Your task to perform on an android device: Search for sushi restaurants on Maps Image 0: 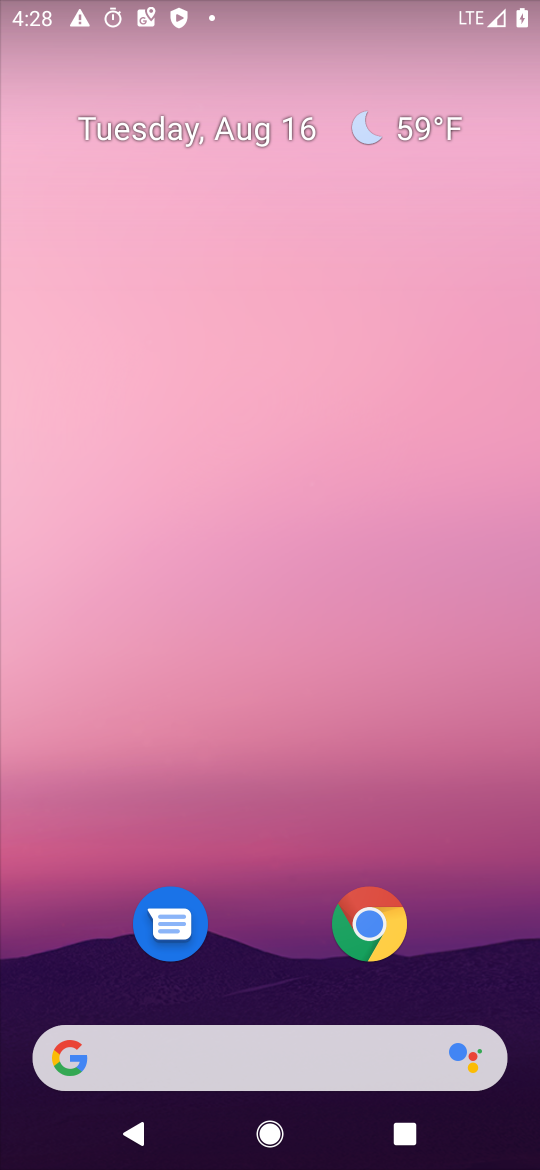
Step 0: drag from (275, 955) to (308, 28)
Your task to perform on an android device: Search for sushi restaurants on Maps Image 1: 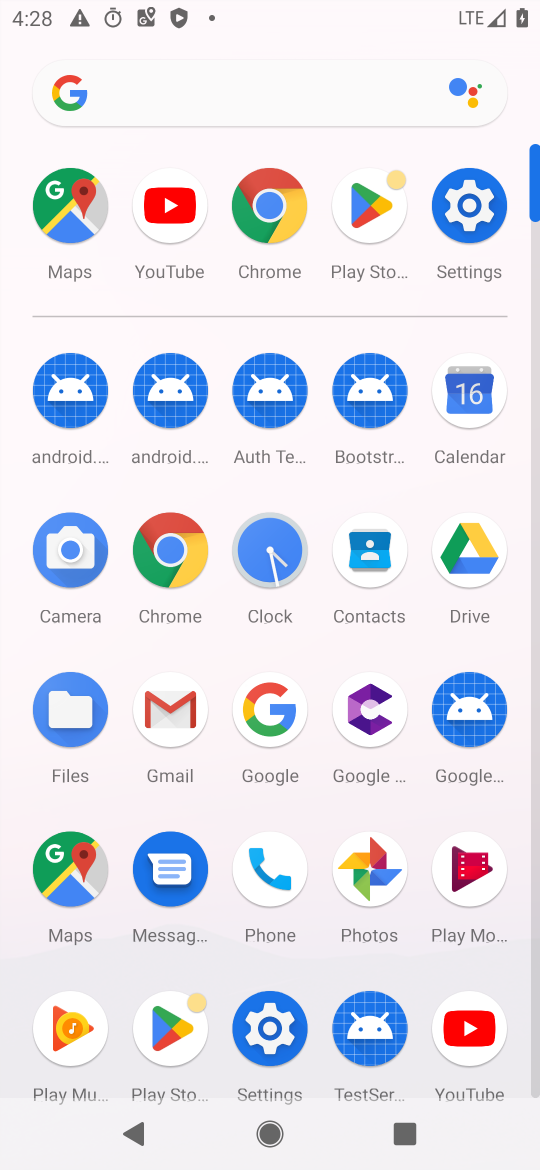
Step 1: click (88, 227)
Your task to perform on an android device: Search for sushi restaurants on Maps Image 2: 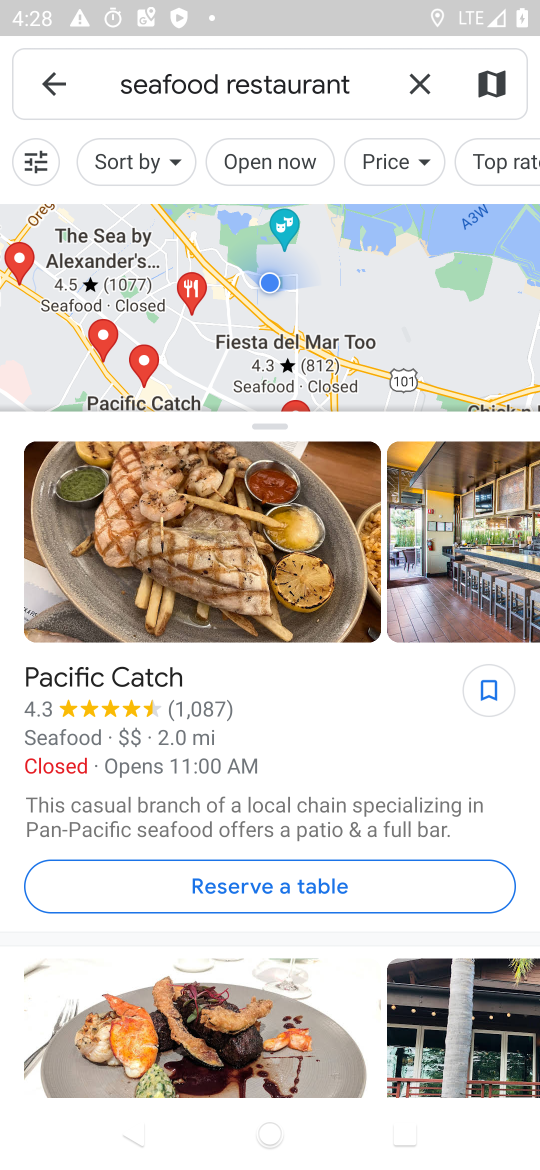
Step 2: click (418, 92)
Your task to perform on an android device: Search for sushi restaurants on Maps Image 3: 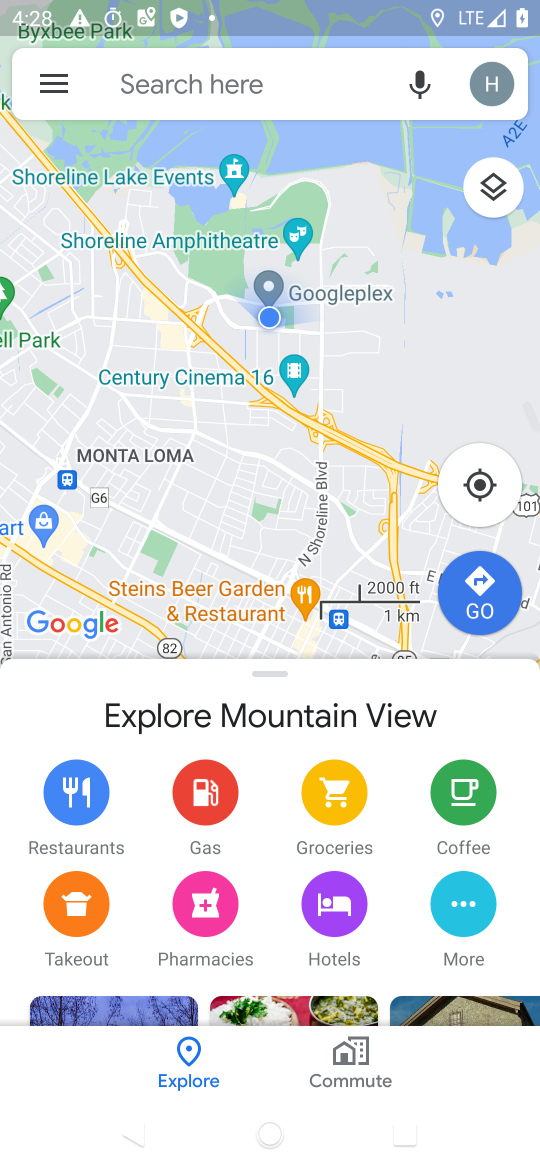
Step 3: click (372, 88)
Your task to perform on an android device: Search for sushi restaurants on Maps Image 4: 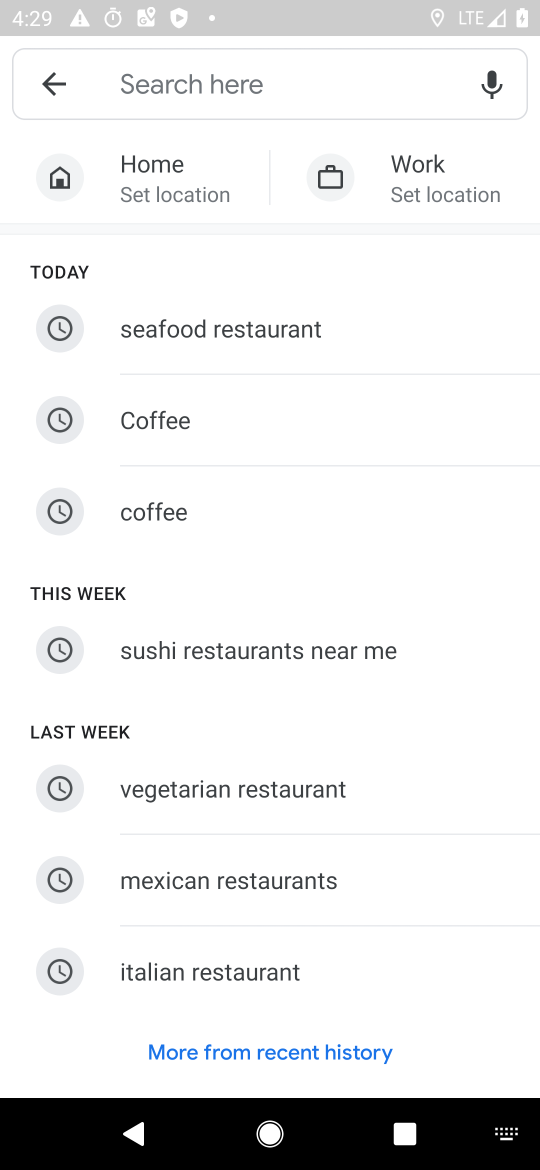
Step 4: click (389, 643)
Your task to perform on an android device: Search for sushi restaurants on Maps Image 5: 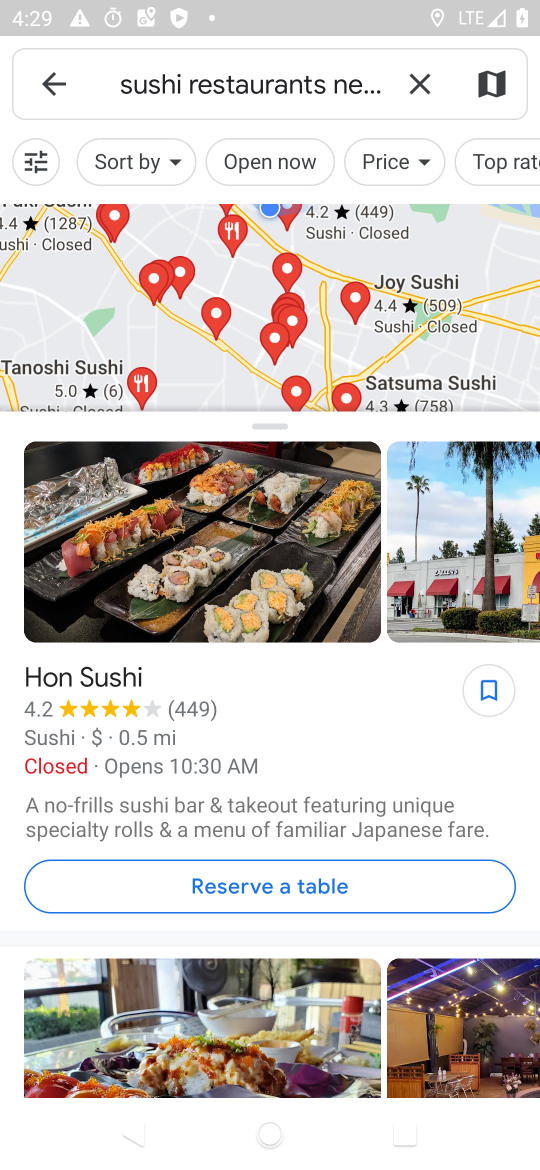
Step 5: task complete